Your task to perform on an android device: open a new tab in the chrome app Image 0: 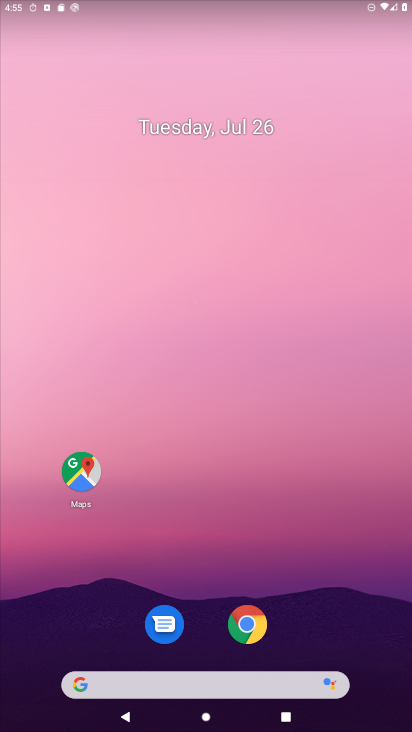
Step 0: click (262, 101)
Your task to perform on an android device: open a new tab in the chrome app Image 1: 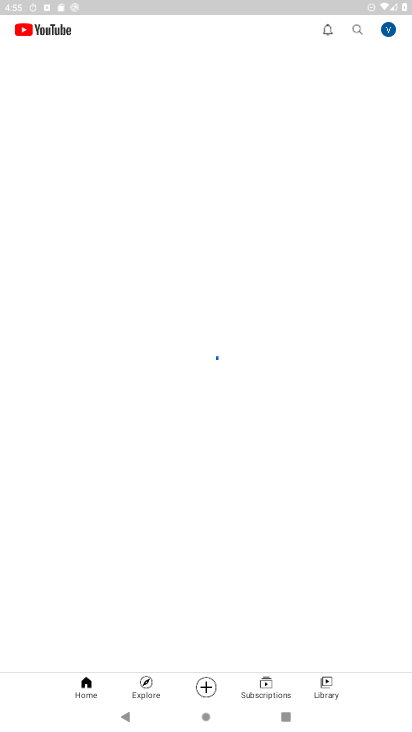
Step 1: press home button
Your task to perform on an android device: open a new tab in the chrome app Image 2: 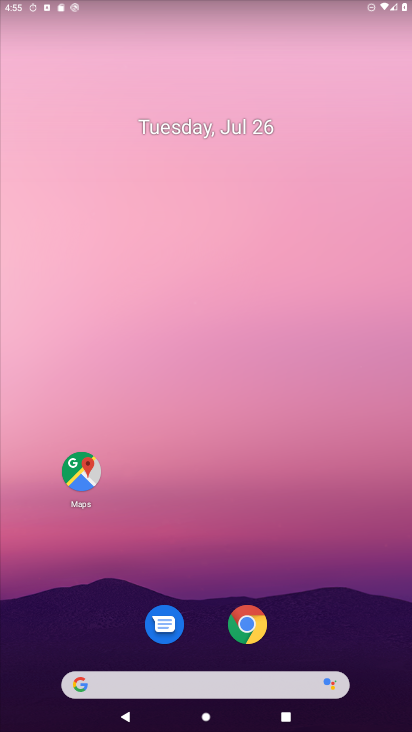
Step 2: drag from (297, 703) to (305, 86)
Your task to perform on an android device: open a new tab in the chrome app Image 3: 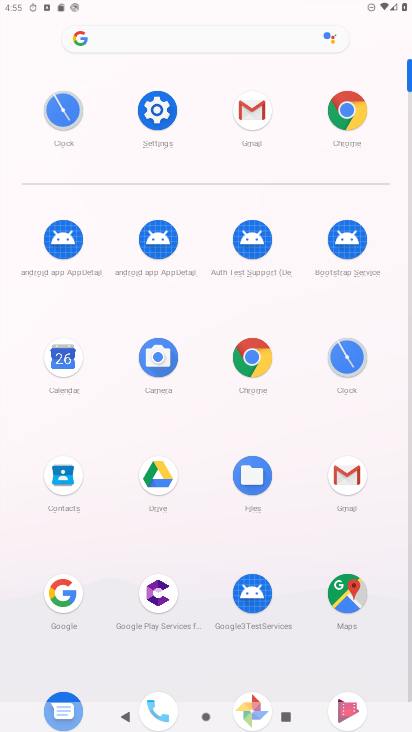
Step 3: click (252, 359)
Your task to perform on an android device: open a new tab in the chrome app Image 4: 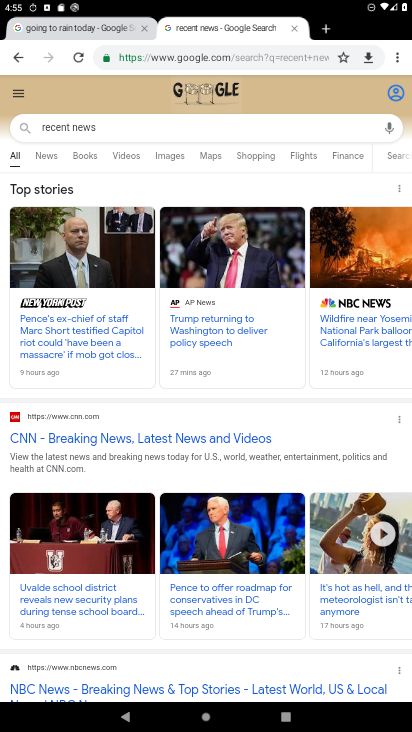
Step 4: click (396, 59)
Your task to perform on an android device: open a new tab in the chrome app Image 5: 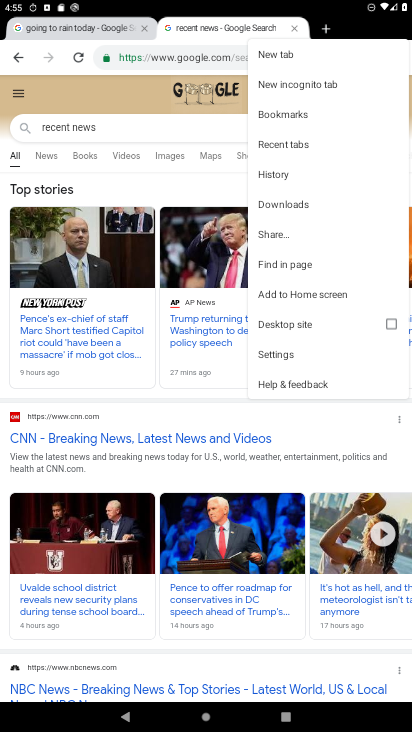
Step 5: click (304, 64)
Your task to perform on an android device: open a new tab in the chrome app Image 6: 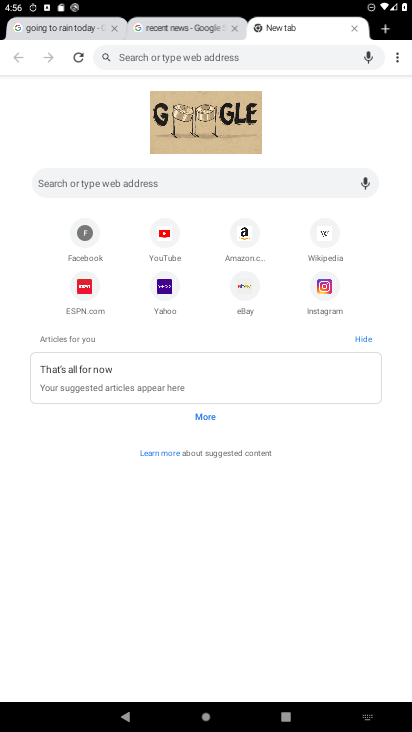
Step 6: task complete